Your task to perform on an android device: turn off javascript in the chrome app Image 0: 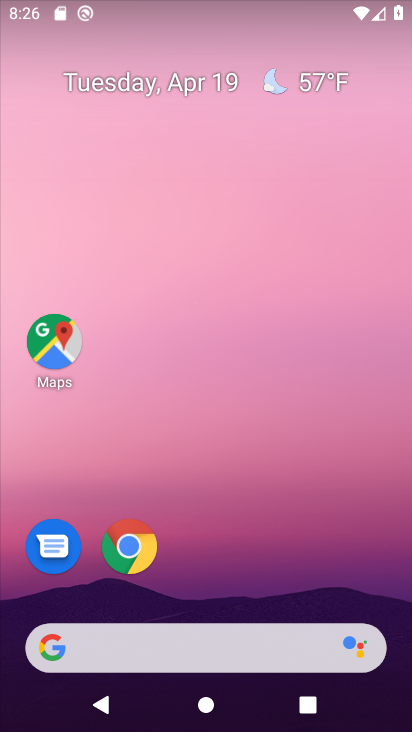
Step 0: click (145, 551)
Your task to perform on an android device: turn off javascript in the chrome app Image 1: 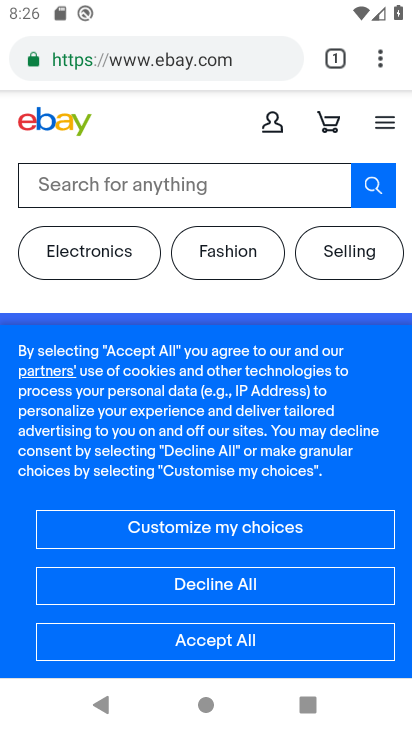
Step 1: click (388, 59)
Your task to perform on an android device: turn off javascript in the chrome app Image 2: 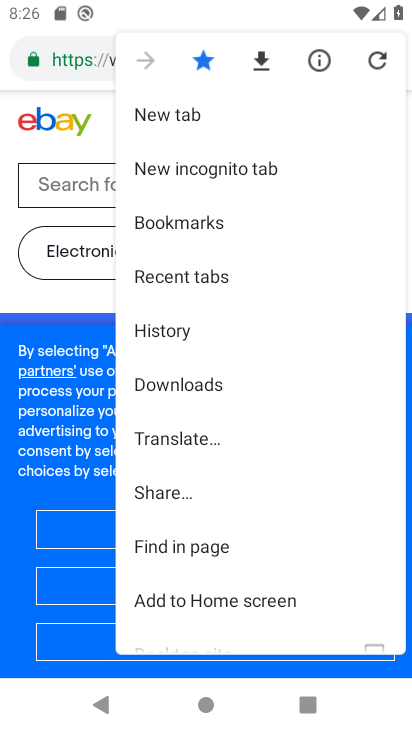
Step 2: drag from (176, 525) to (276, 144)
Your task to perform on an android device: turn off javascript in the chrome app Image 3: 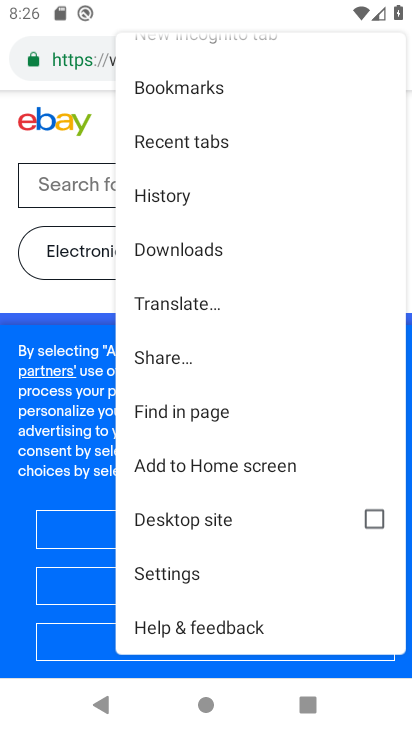
Step 3: click (172, 583)
Your task to perform on an android device: turn off javascript in the chrome app Image 4: 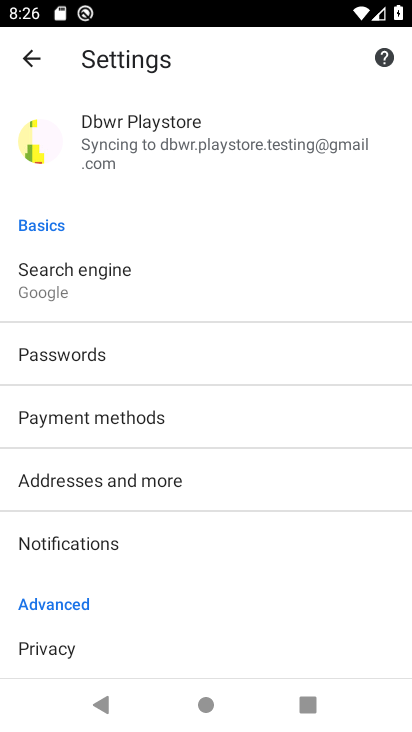
Step 4: drag from (133, 558) to (255, 82)
Your task to perform on an android device: turn off javascript in the chrome app Image 5: 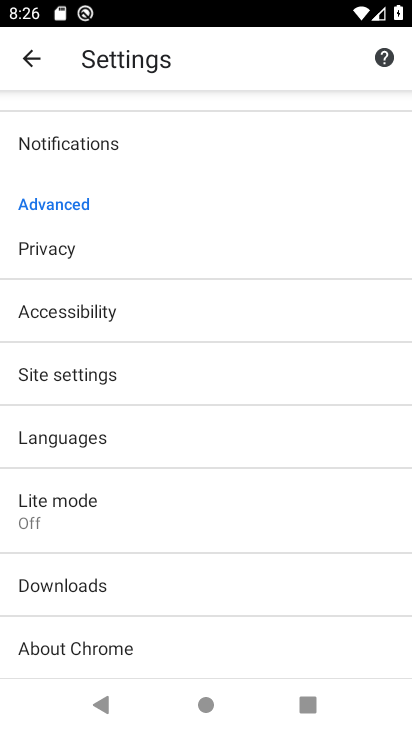
Step 5: click (88, 387)
Your task to perform on an android device: turn off javascript in the chrome app Image 6: 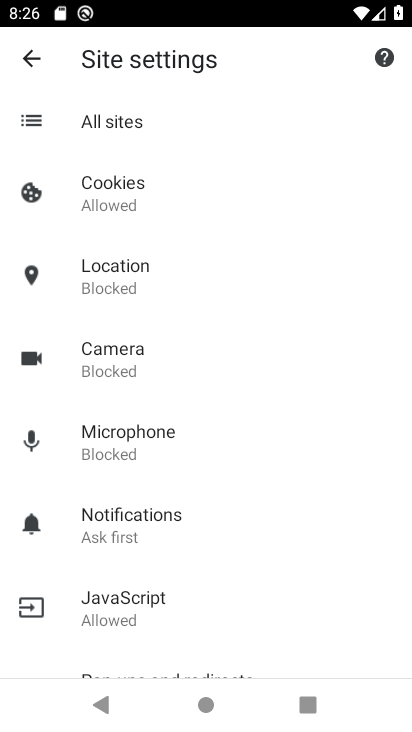
Step 6: click (124, 606)
Your task to perform on an android device: turn off javascript in the chrome app Image 7: 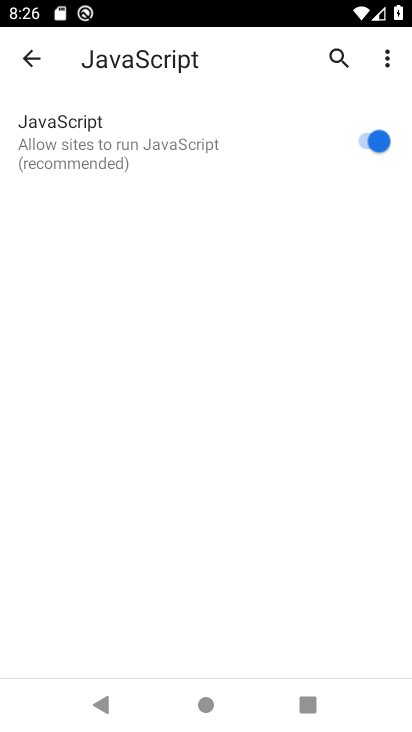
Step 7: click (365, 142)
Your task to perform on an android device: turn off javascript in the chrome app Image 8: 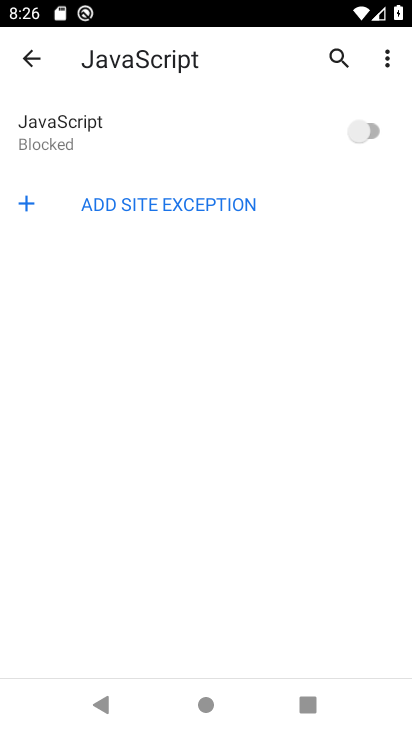
Step 8: task complete